Your task to perform on an android device: open sync settings in chrome Image 0: 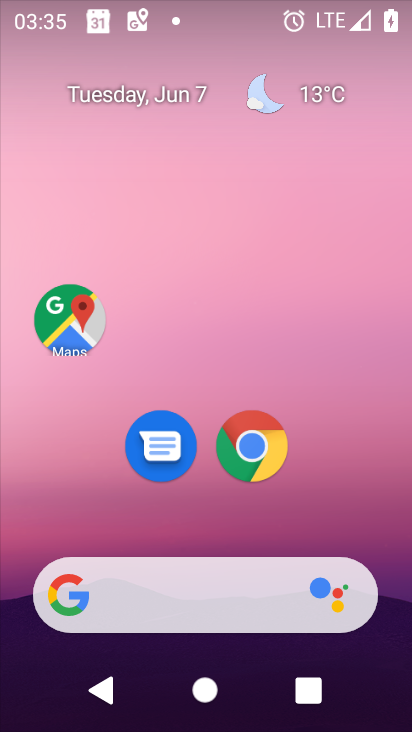
Step 0: click (286, 454)
Your task to perform on an android device: open sync settings in chrome Image 1: 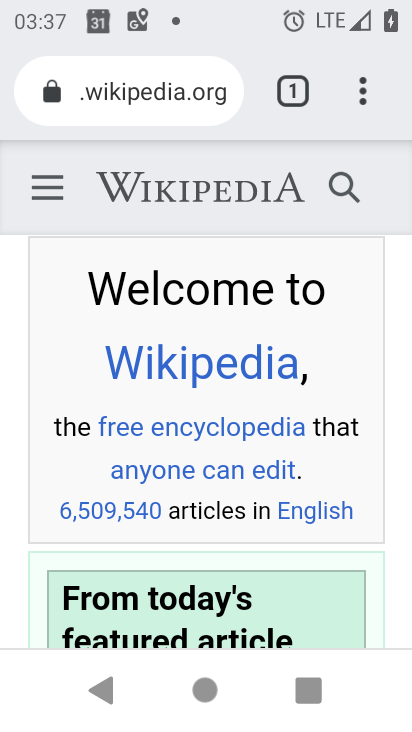
Step 1: click (356, 85)
Your task to perform on an android device: open sync settings in chrome Image 2: 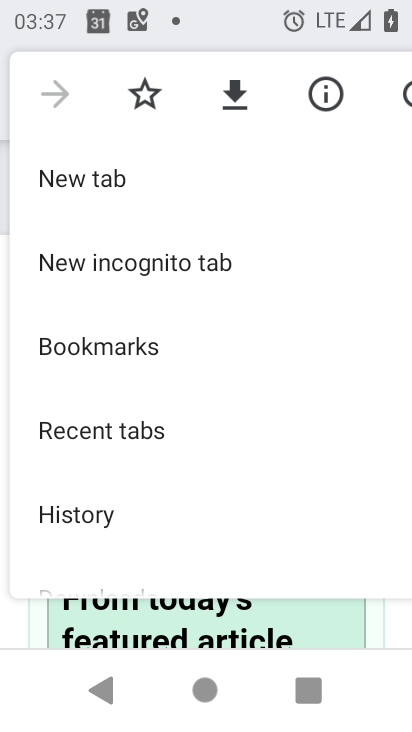
Step 2: drag from (161, 518) to (188, 25)
Your task to perform on an android device: open sync settings in chrome Image 3: 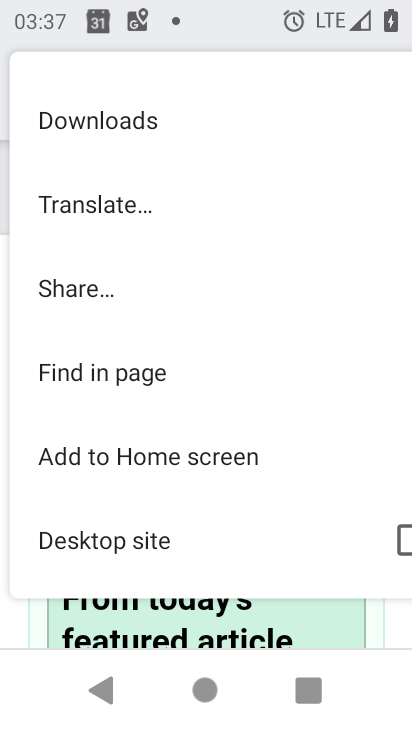
Step 3: drag from (189, 544) to (259, 91)
Your task to perform on an android device: open sync settings in chrome Image 4: 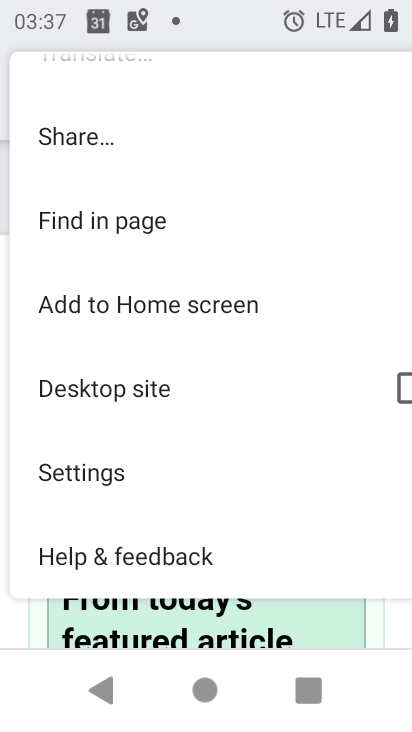
Step 4: click (142, 487)
Your task to perform on an android device: open sync settings in chrome Image 5: 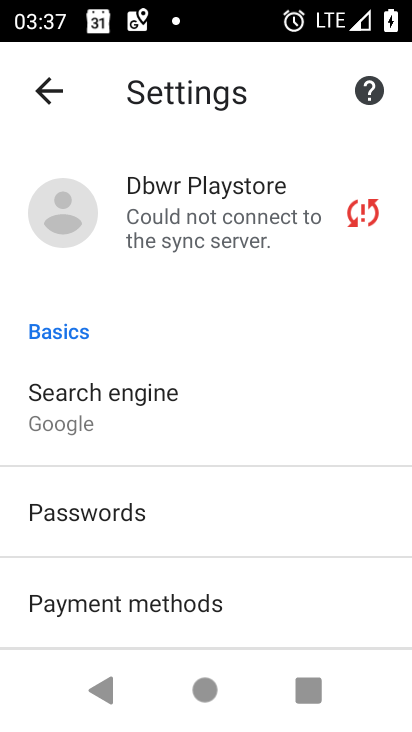
Step 5: click (243, 242)
Your task to perform on an android device: open sync settings in chrome Image 6: 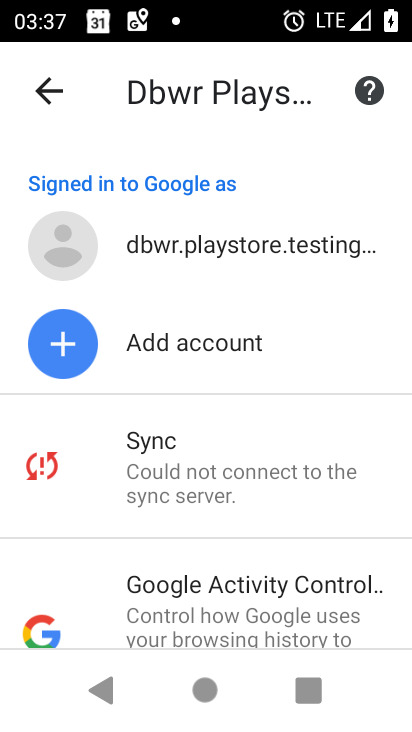
Step 6: click (278, 486)
Your task to perform on an android device: open sync settings in chrome Image 7: 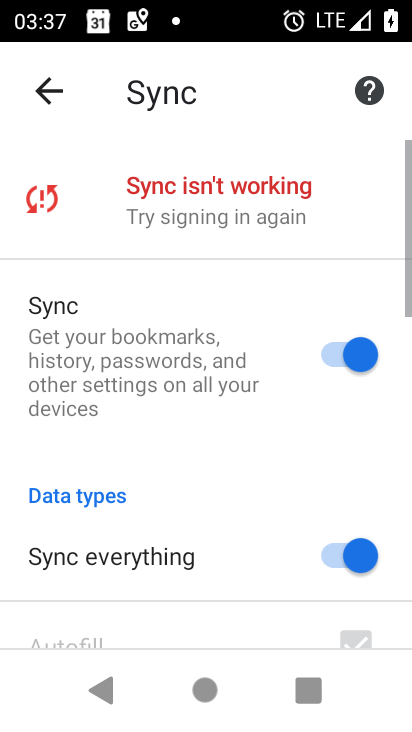
Step 7: task complete